Your task to perform on an android device: Open Android settings Image 0: 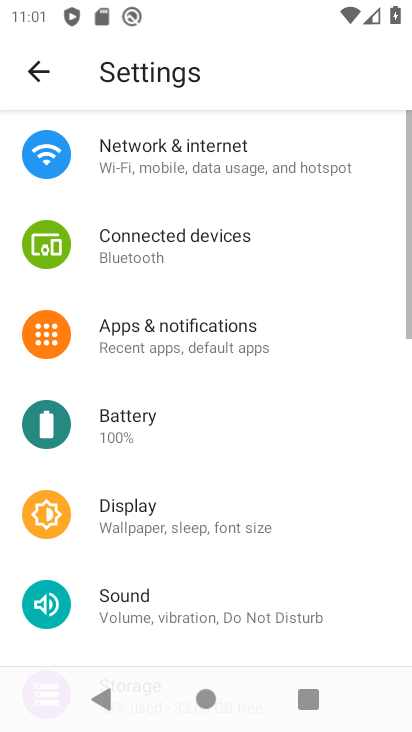
Step 0: press home button
Your task to perform on an android device: Open Android settings Image 1: 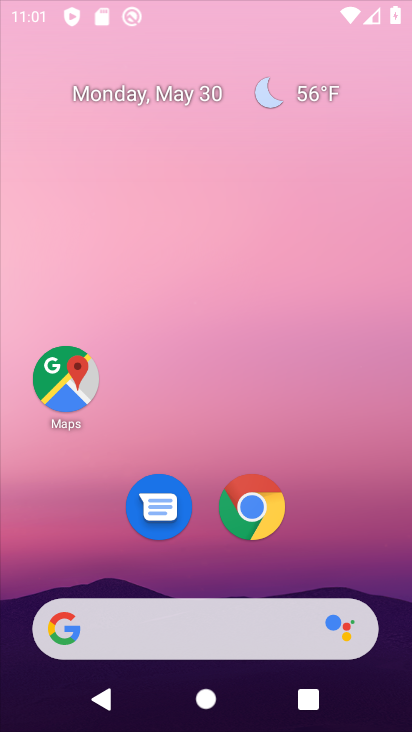
Step 1: click (276, 9)
Your task to perform on an android device: Open Android settings Image 2: 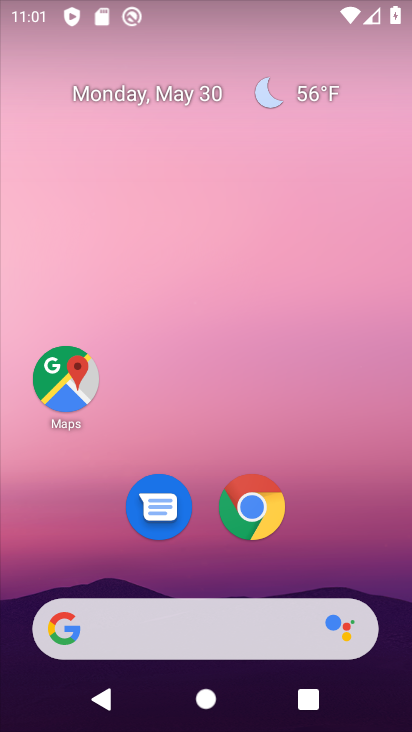
Step 2: drag from (159, 730) to (113, 42)
Your task to perform on an android device: Open Android settings Image 3: 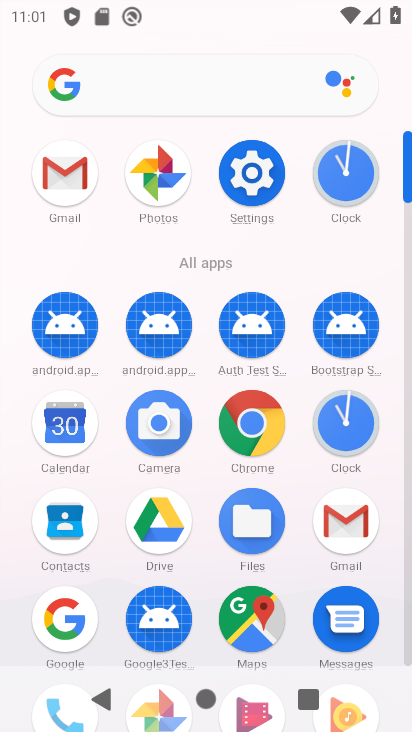
Step 3: click (248, 190)
Your task to perform on an android device: Open Android settings Image 4: 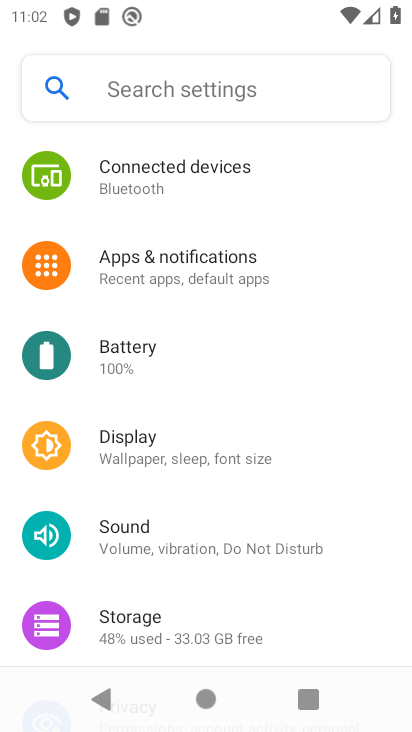
Step 4: task complete